Your task to perform on an android device: Toggle the flashlight Image 0: 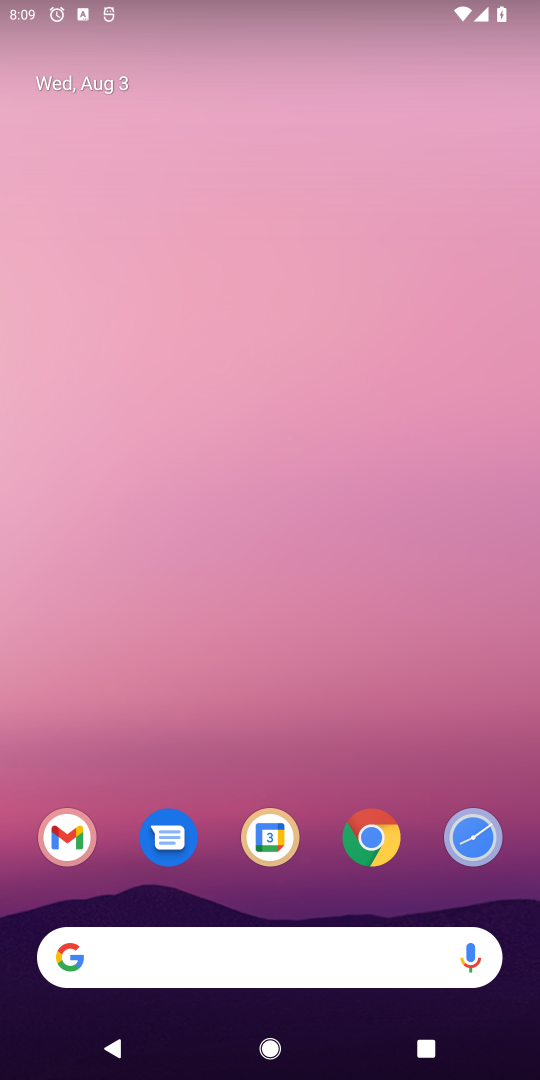
Step 0: drag from (259, 1) to (203, 986)
Your task to perform on an android device: Toggle the flashlight Image 1: 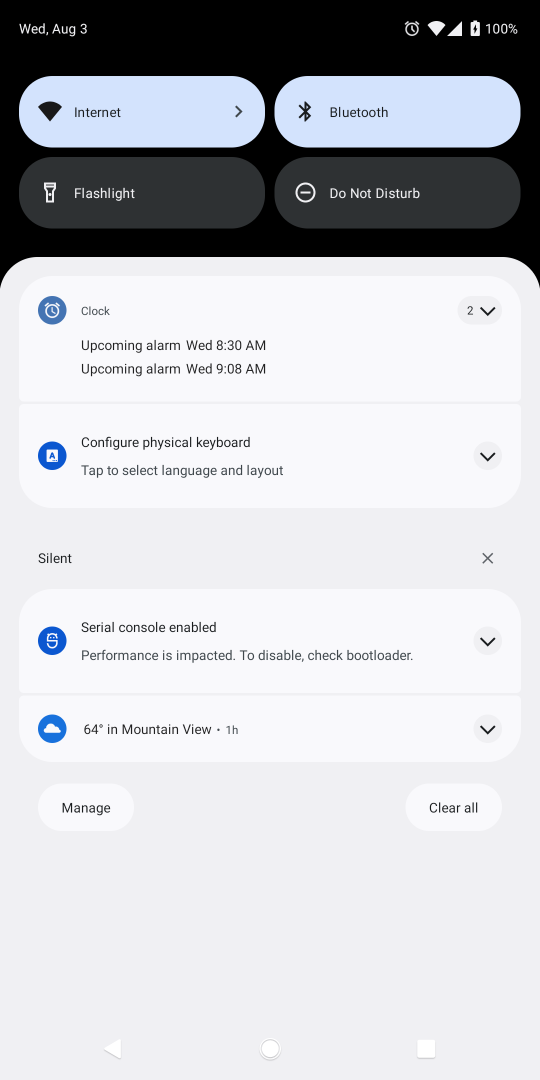
Step 1: click (94, 200)
Your task to perform on an android device: Toggle the flashlight Image 2: 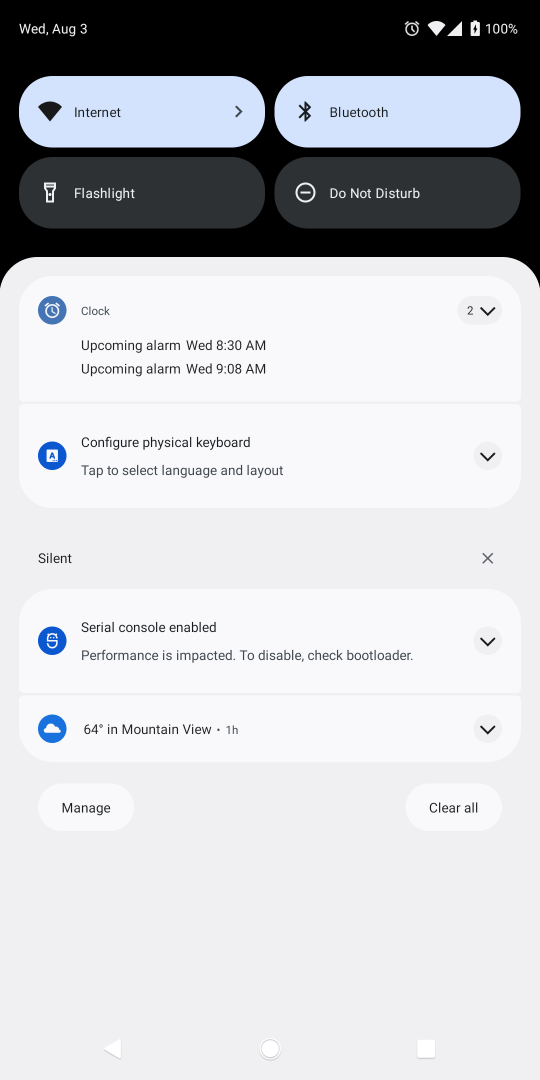
Step 2: click (95, 201)
Your task to perform on an android device: Toggle the flashlight Image 3: 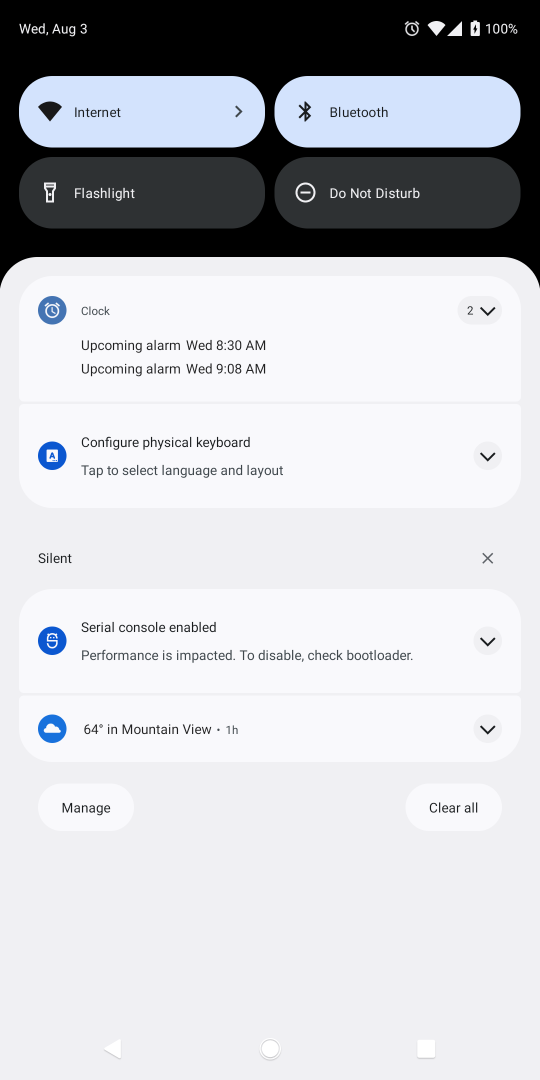
Step 3: task complete